Your task to perform on an android device: change notifications settings Image 0: 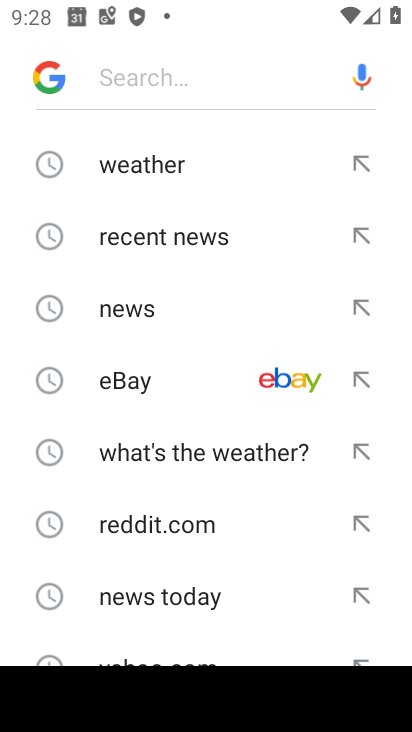
Step 0: press home button
Your task to perform on an android device: change notifications settings Image 1: 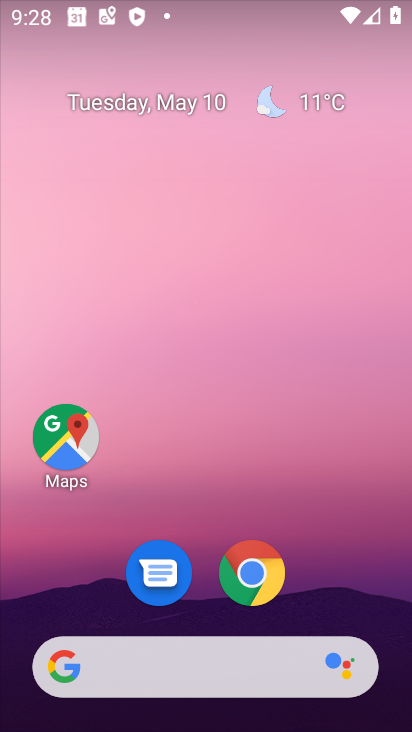
Step 1: drag from (359, 617) to (395, 12)
Your task to perform on an android device: change notifications settings Image 2: 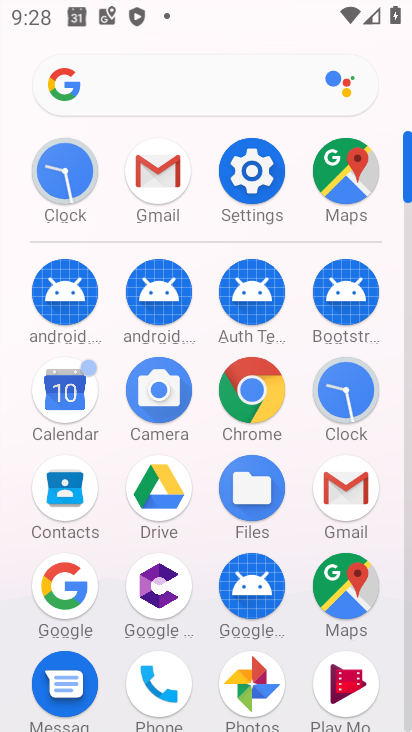
Step 2: click (247, 172)
Your task to perform on an android device: change notifications settings Image 3: 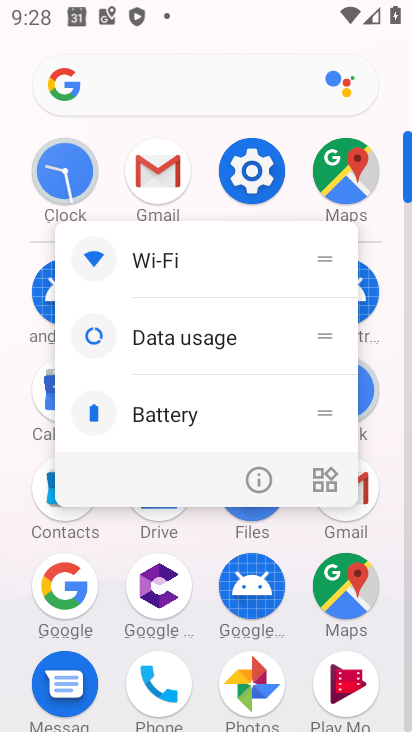
Step 3: click (266, 171)
Your task to perform on an android device: change notifications settings Image 4: 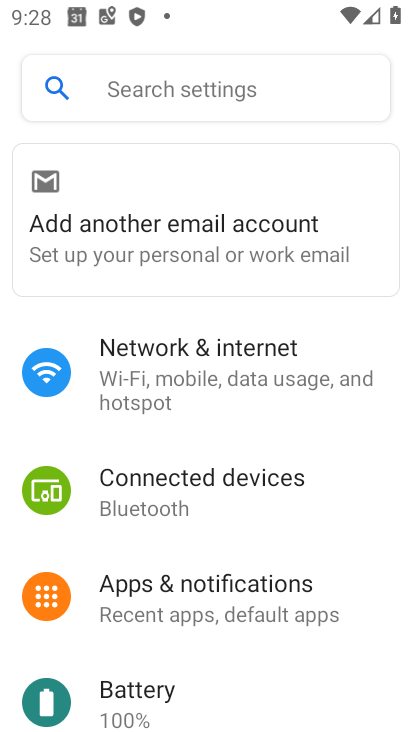
Step 4: click (216, 602)
Your task to perform on an android device: change notifications settings Image 5: 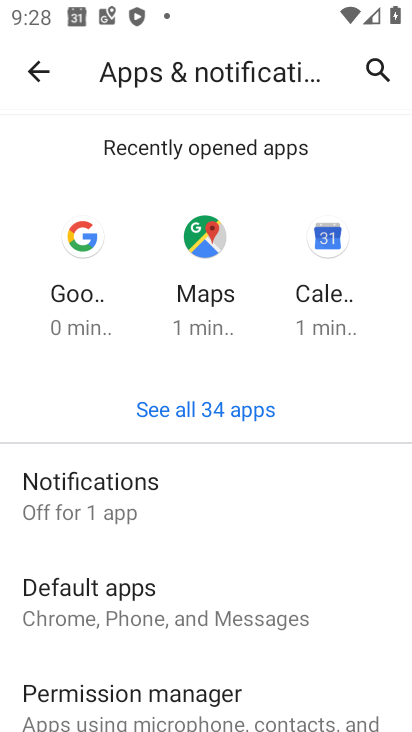
Step 5: click (99, 495)
Your task to perform on an android device: change notifications settings Image 6: 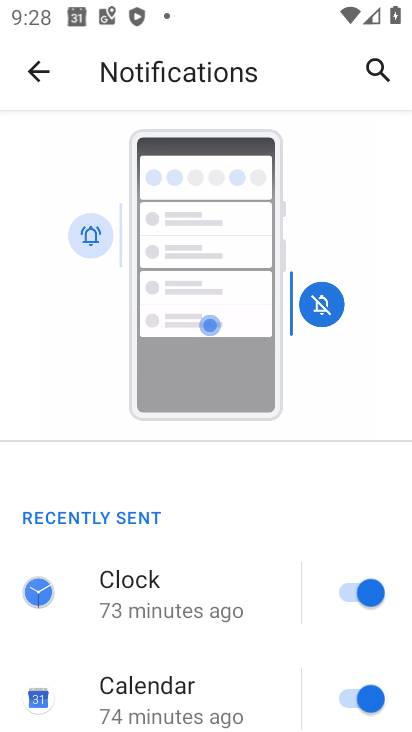
Step 6: drag from (241, 584) to (221, 234)
Your task to perform on an android device: change notifications settings Image 7: 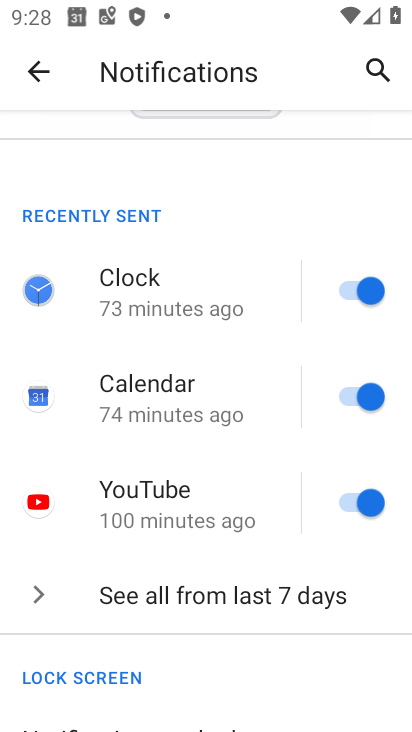
Step 7: drag from (184, 622) to (193, 225)
Your task to perform on an android device: change notifications settings Image 8: 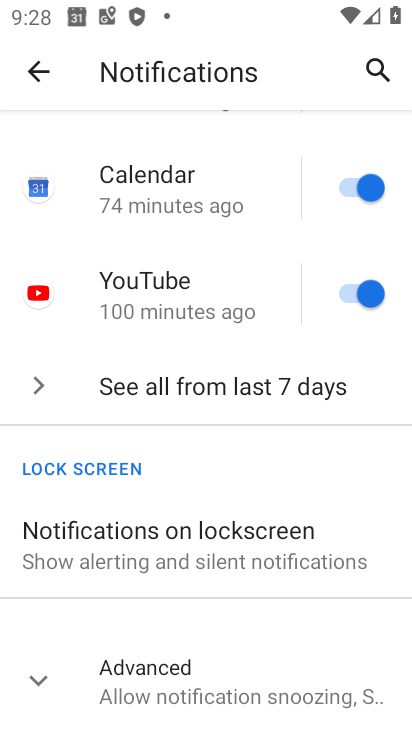
Step 8: click (185, 393)
Your task to perform on an android device: change notifications settings Image 9: 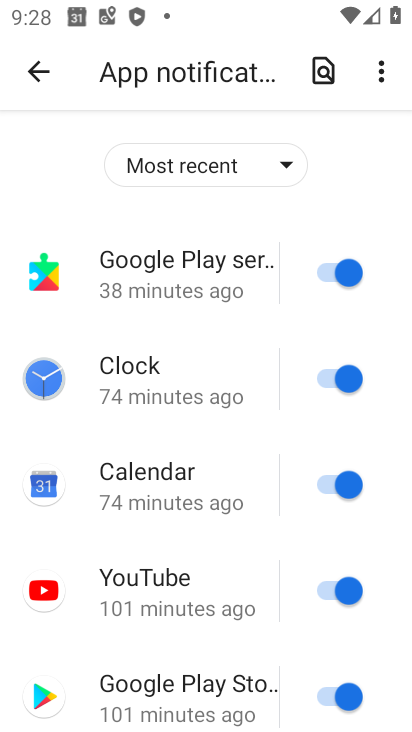
Step 9: click (283, 165)
Your task to perform on an android device: change notifications settings Image 10: 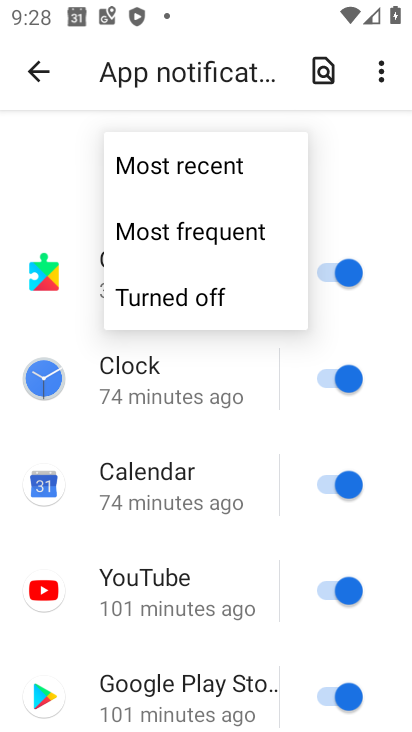
Step 10: click (192, 231)
Your task to perform on an android device: change notifications settings Image 11: 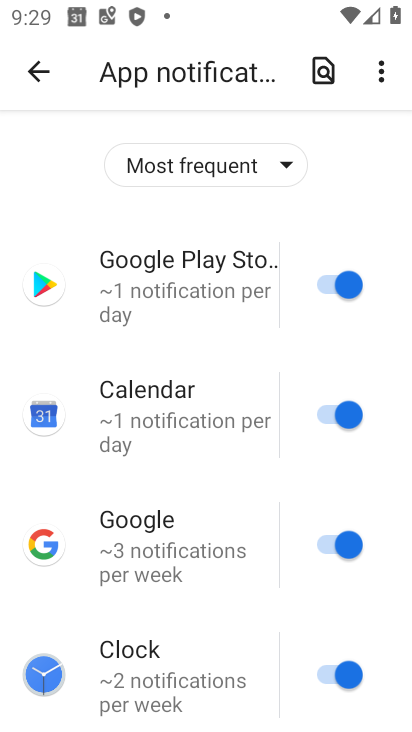
Step 11: task complete